Your task to perform on an android device: empty trash in google photos Image 0: 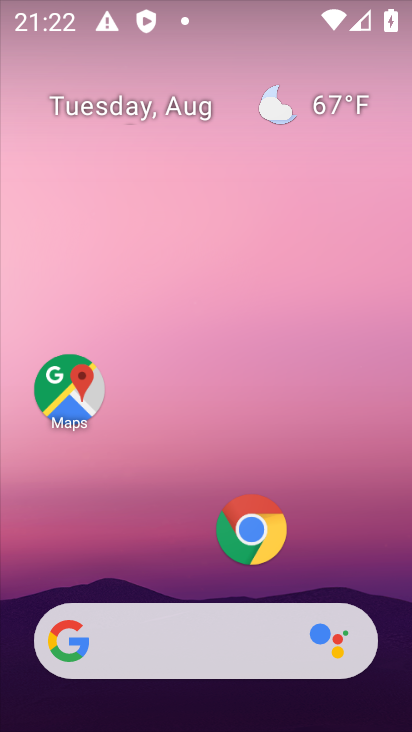
Step 0: drag from (198, 531) to (241, 112)
Your task to perform on an android device: empty trash in google photos Image 1: 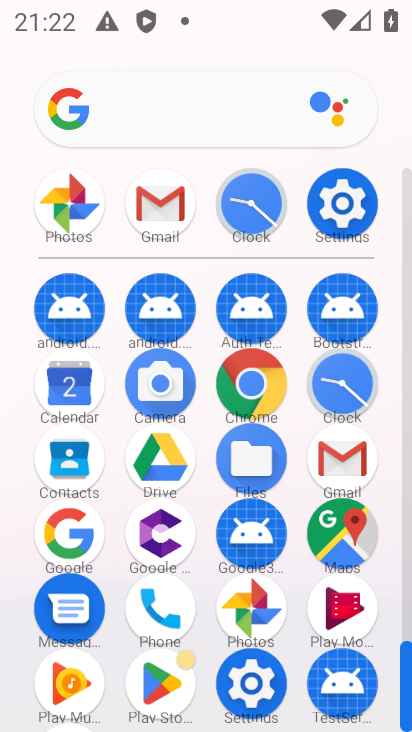
Step 1: click (250, 598)
Your task to perform on an android device: empty trash in google photos Image 2: 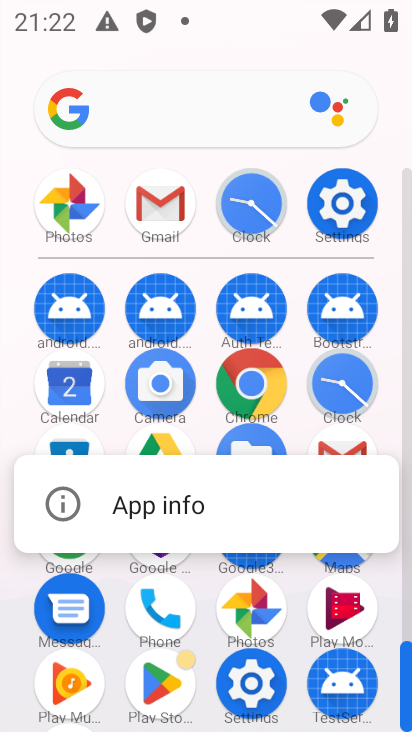
Step 2: click (109, 503)
Your task to perform on an android device: empty trash in google photos Image 3: 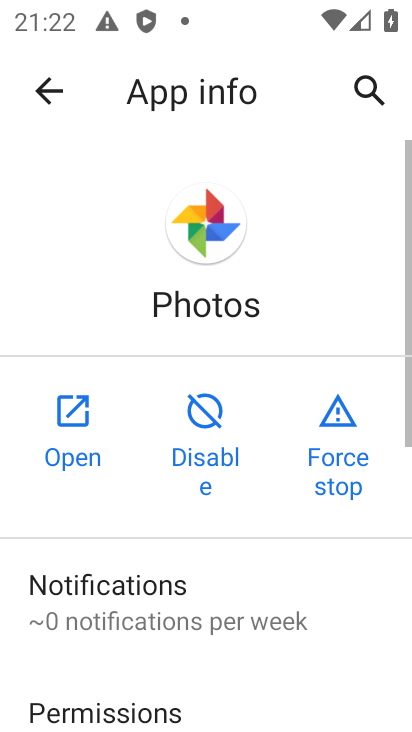
Step 3: click (60, 413)
Your task to perform on an android device: empty trash in google photos Image 4: 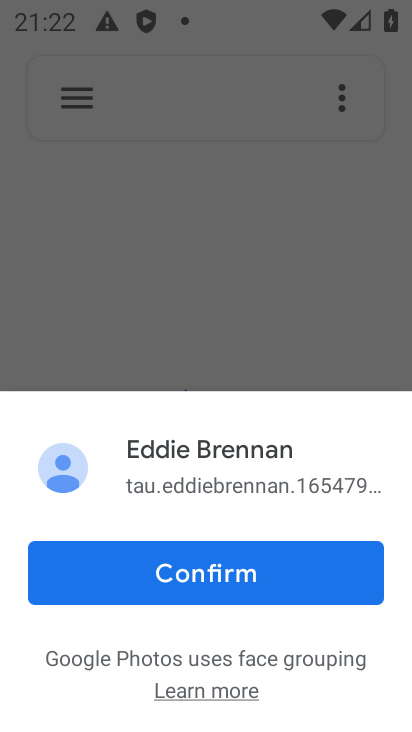
Step 4: click (80, 98)
Your task to perform on an android device: empty trash in google photos Image 5: 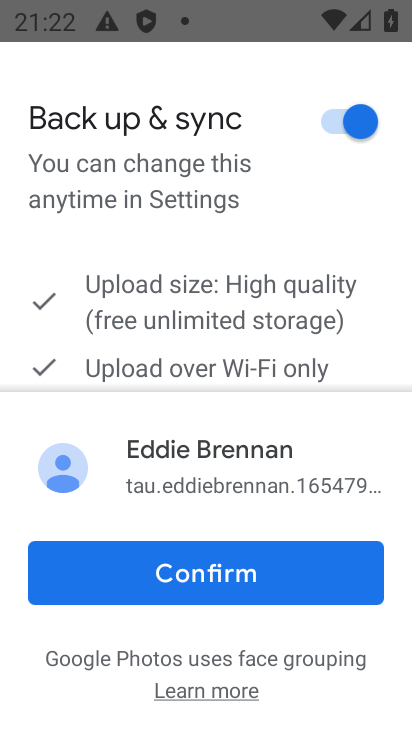
Step 5: click (177, 556)
Your task to perform on an android device: empty trash in google photos Image 6: 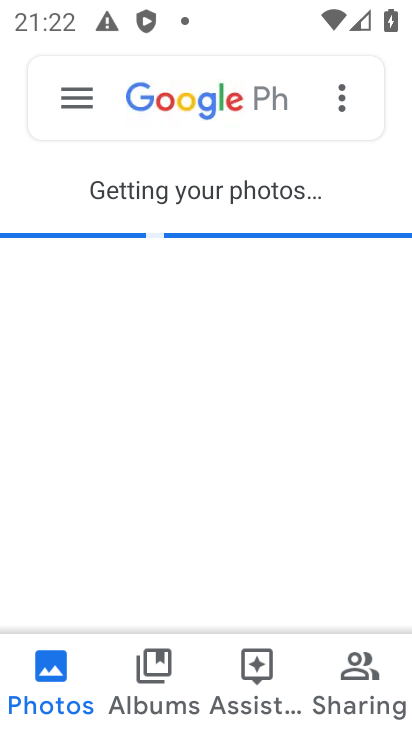
Step 6: click (88, 95)
Your task to perform on an android device: empty trash in google photos Image 7: 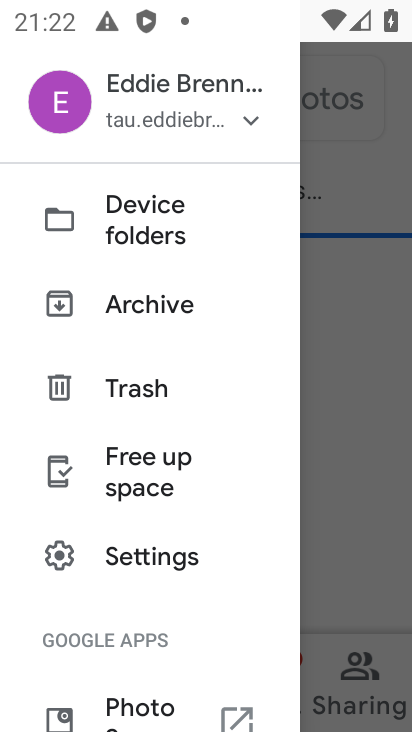
Step 7: click (120, 391)
Your task to perform on an android device: empty trash in google photos Image 8: 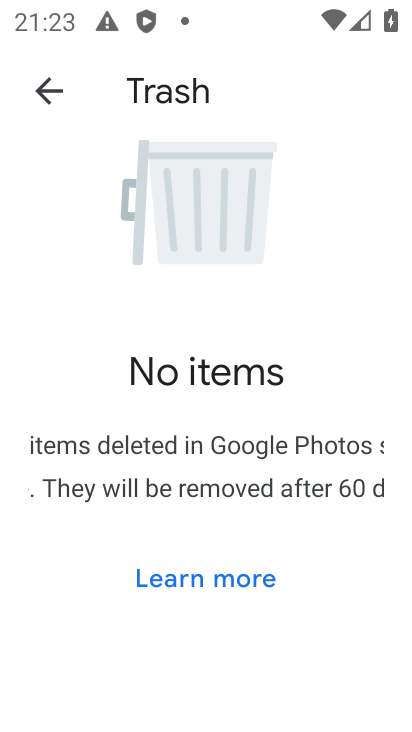
Step 8: click (352, 437)
Your task to perform on an android device: empty trash in google photos Image 9: 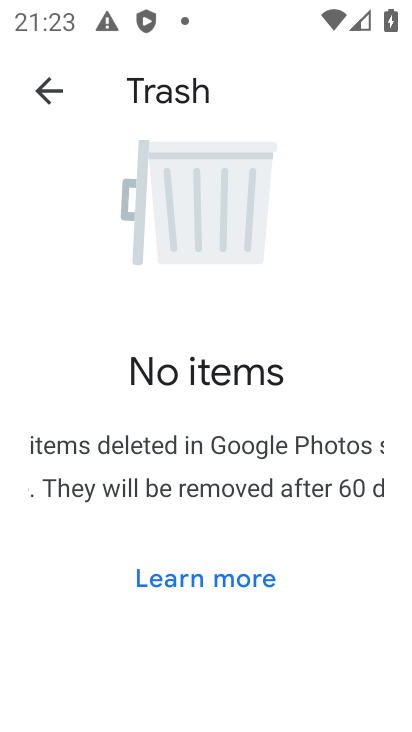
Step 9: press home button
Your task to perform on an android device: empty trash in google photos Image 10: 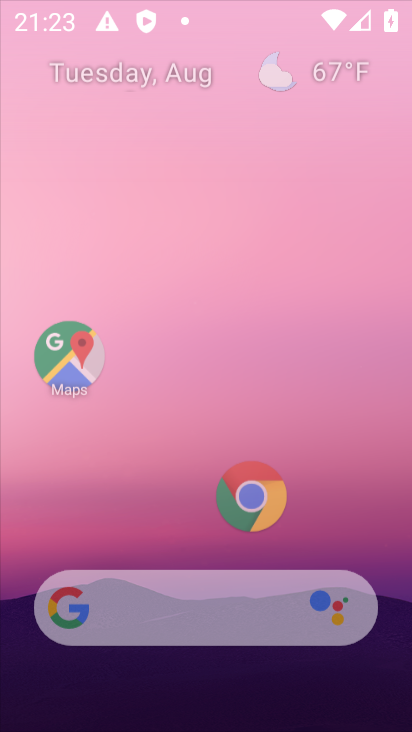
Step 10: drag from (180, 680) to (215, 169)
Your task to perform on an android device: empty trash in google photos Image 11: 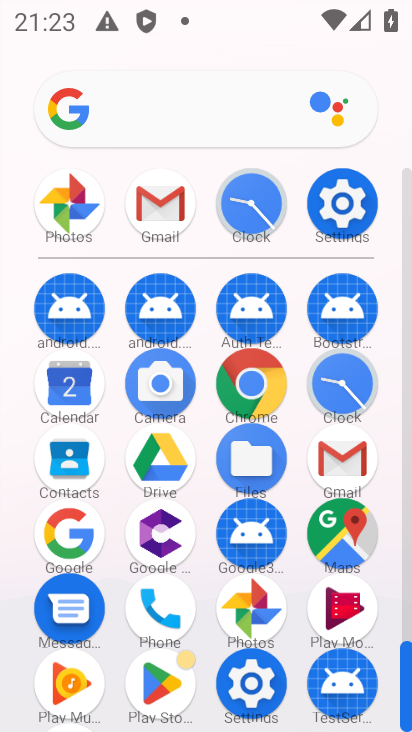
Step 11: click (253, 624)
Your task to perform on an android device: empty trash in google photos Image 12: 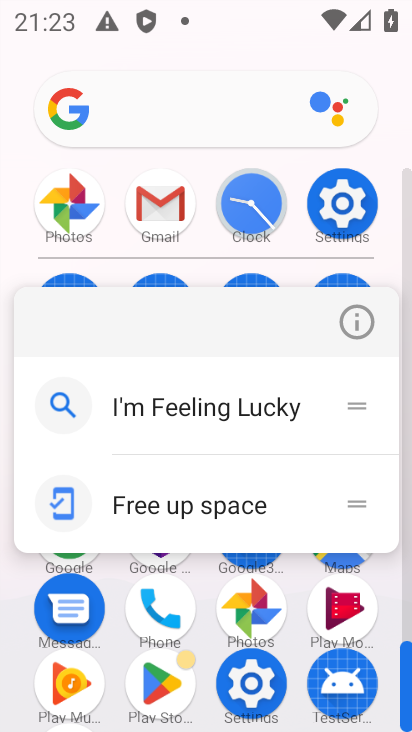
Step 12: click (350, 315)
Your task to perform on an android device: empty trash in google photos Image 13: 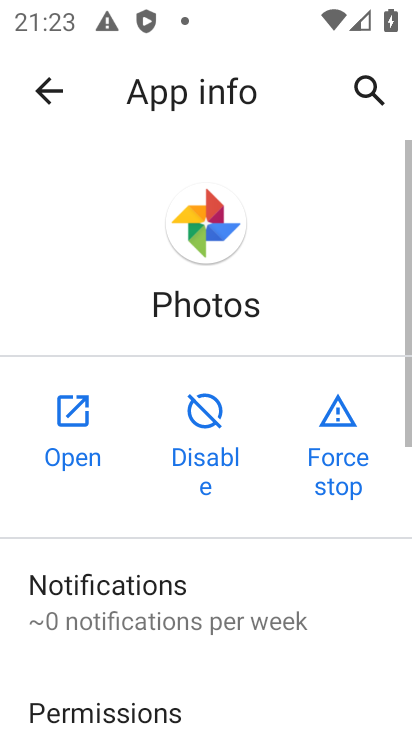
Step 13: click (79, 406)
Your task to perform on an android device: empty trash in google photos Image 14: 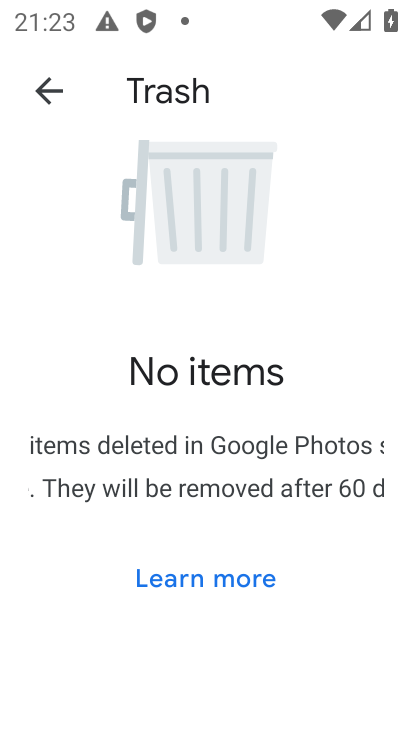
Step 14: drag from (211, 662) to (204, 314)
Your task to perform on an android device: empty trash in google photos Image 15: 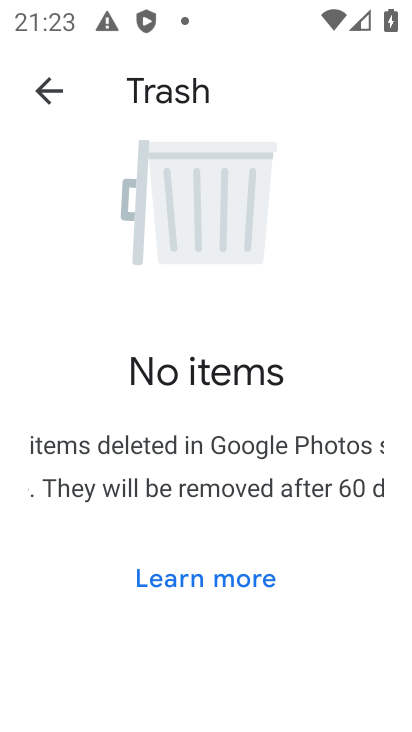
Step 15: drag from (221, 376) to (265, 719)
Your task to perform on an android device: empty trash in google photos Image 16: 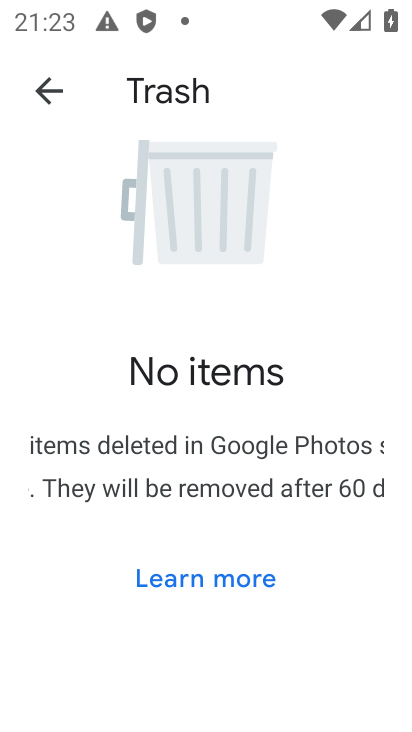
Step 16: click (144, 231)
Your task to perform on an android device: empty trash in google photos Image 17: 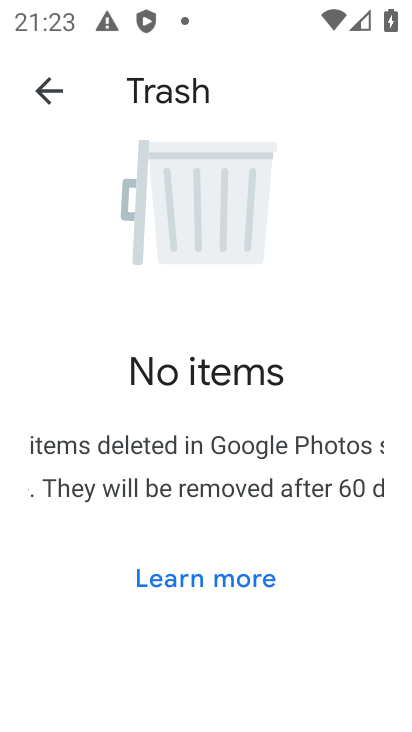
Step 17: task complete